Your task to perform on an android device: toggle translation in the chrome app Image 0: 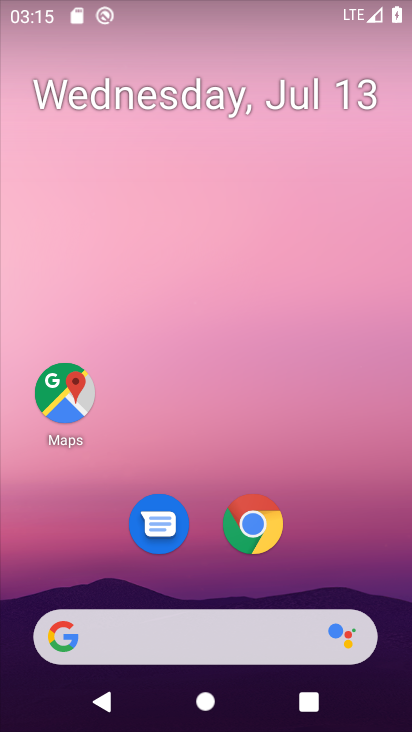
Step 0: click (271, 527)
Your task to perform on an android device: toggle translation in the chrome app Image 1: 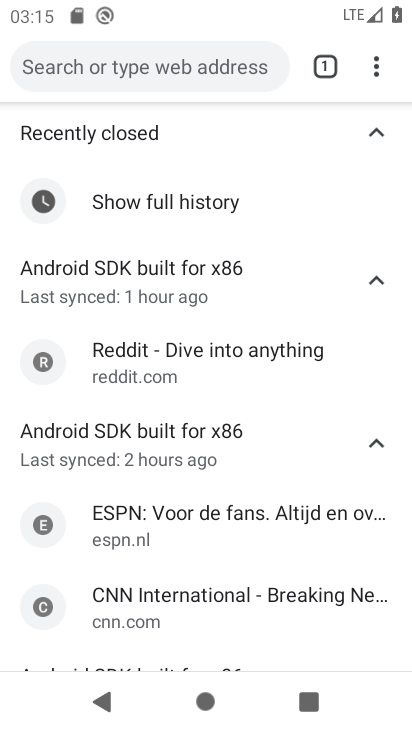
Step 1: click (372, 67)
Your task to perform on an android device: toggle translation in the chrome app Image 2: 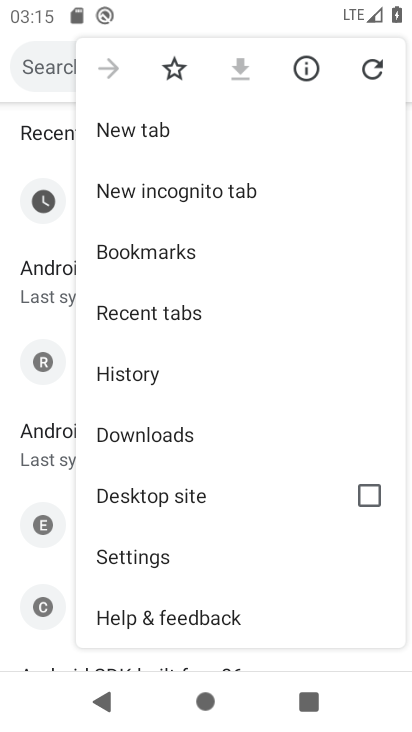
Step 2: click (165, 552)
Your task to perform on an android device: toggle translation in the chrome app Image 3: 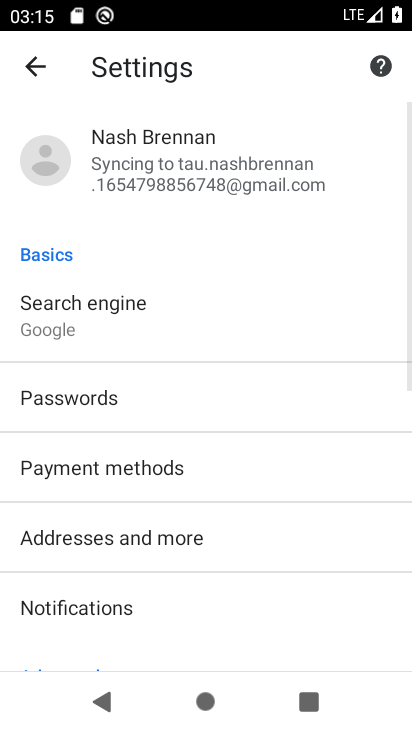
Step 3: drag from (237, 579) to (284, 47)
Your task to perform on an android device: toggle translation in the chrome app Image 4: 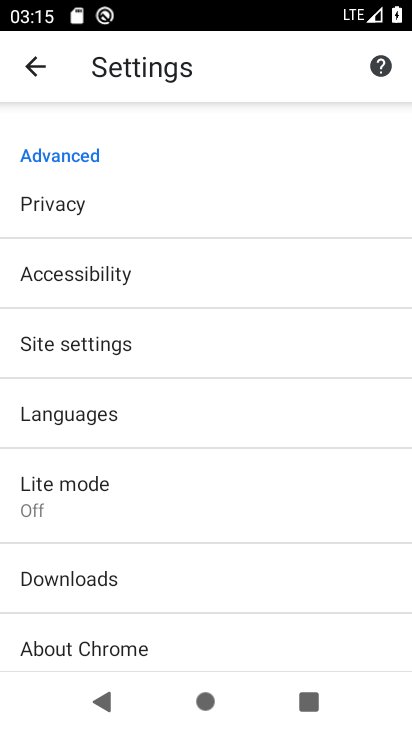
Step 4: click (182, 411)
Your task to perform on an android device: toggle translation in the chrome app Image 5: 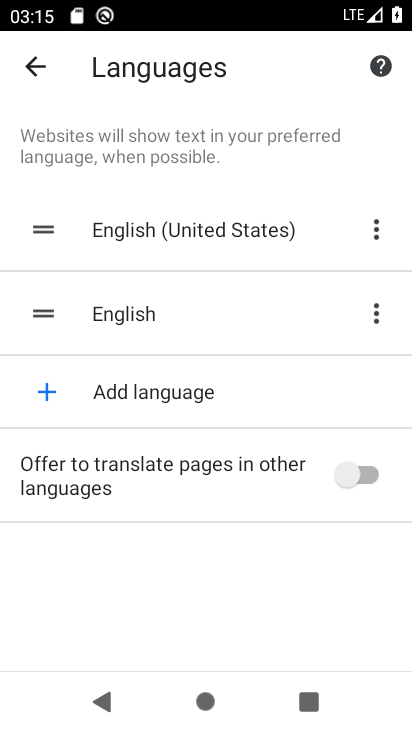
Step 5: click (349, 475)
Your task to perform on an android device: toggle translation in the chrome app Image 6: 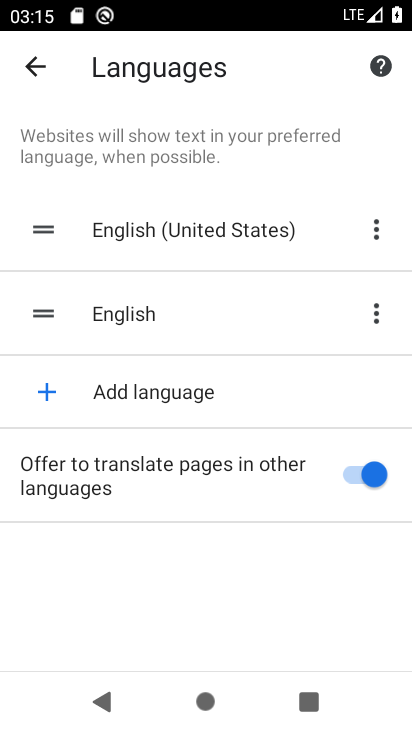
Step 6: task complete